Your task to perform on an android device: manage bookmarks in the chrome app Image 0: 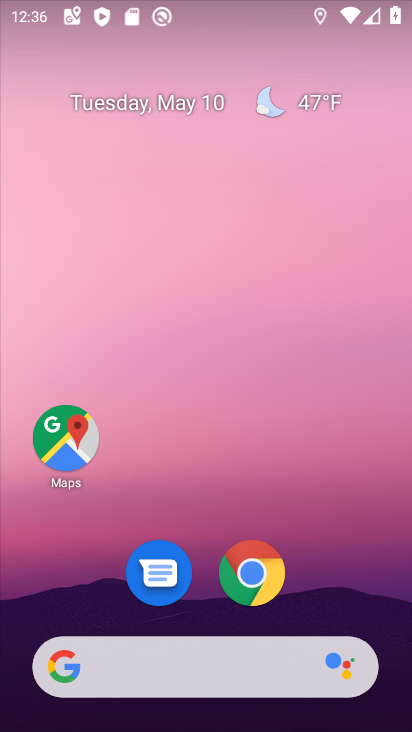
Step 0: drag from (236, 596) to (315, 136)
Your task to perform on an android device: manage bookmarks in the chrome app Image 1: 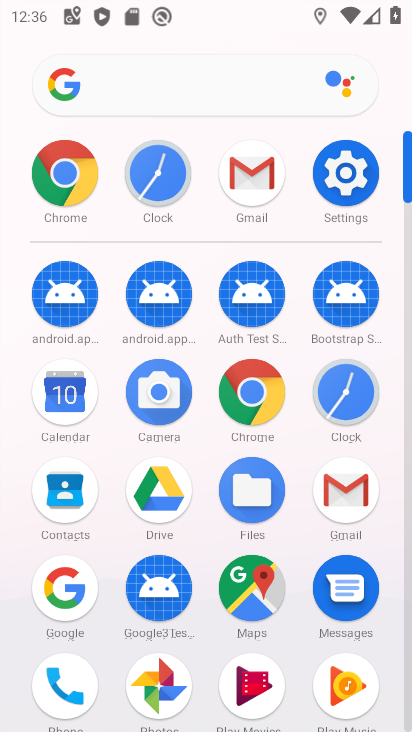
Step 1: click (240, 397)
Your task to perform on an android device: manage bookmarks in the chrome app Image 2: 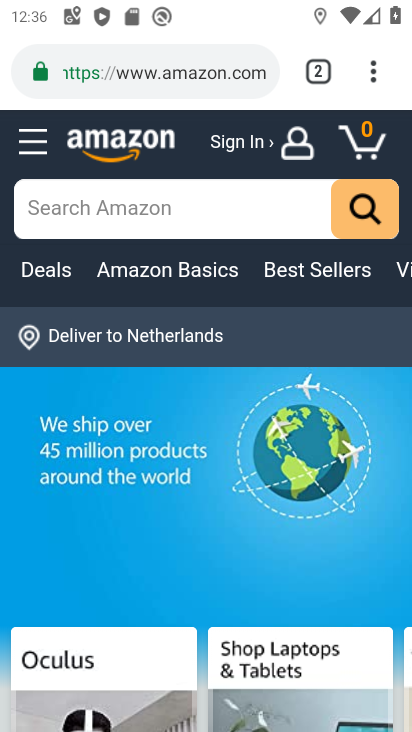
Step 2: drag from (152, 626) to (192, 307)
Your task to perform on an android device: manage bookmarks in the chrome app Image 3: 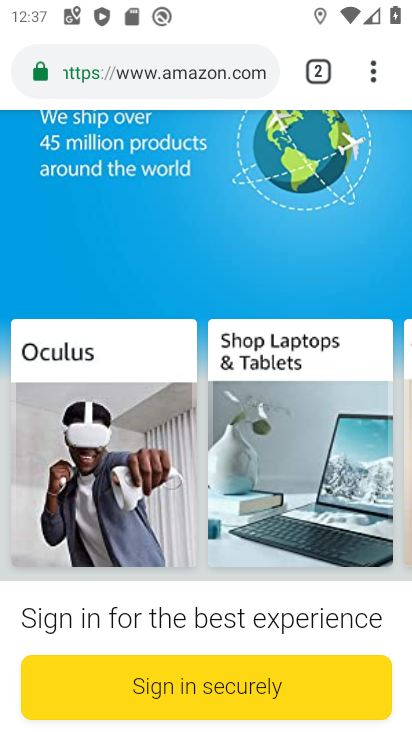
Step 3: click (378, 58)
Your task to perform on an android device: manage bookmarks in the chrome app Image 4: 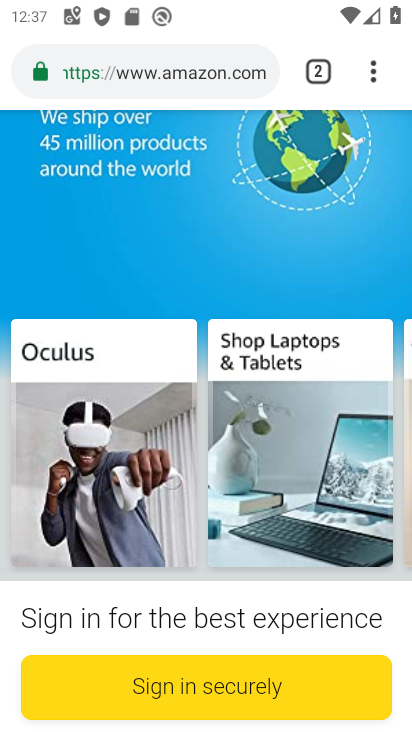
Step 4: drag from (235, 487) to (269, 199)
Your task to perform on an android device: manage bookmarks in the chrome app Image 5: 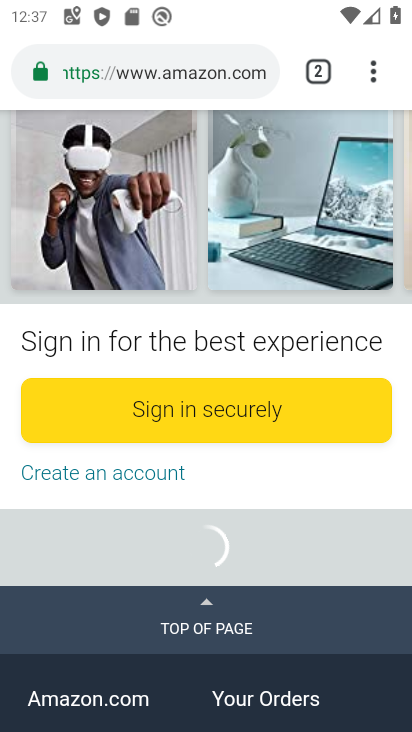
Step 5: drag from (369, 85) to (172, 271)
Your task to perform on an android device: manage bookmarks in the chrome app Image 6: 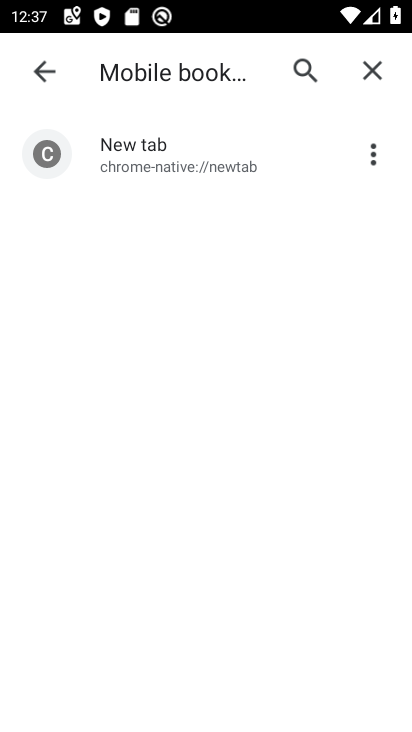
Step 6: drag from (178, 578) to (244, 189)
Your task to perform on an android device: manage bookmarks in the chrome app Image 7: 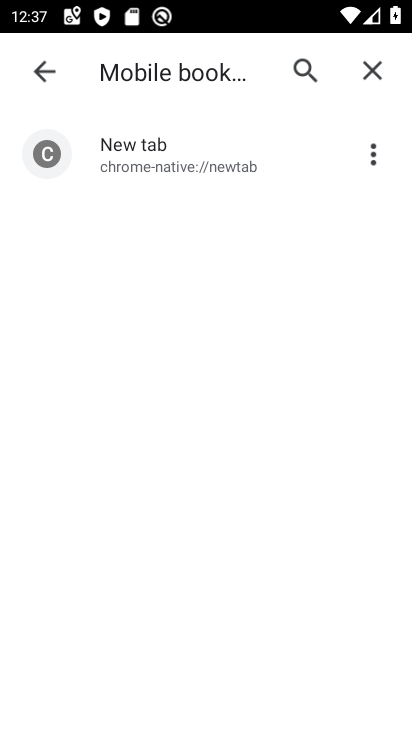
Step 7: drag from (88, 619) to (116, 412)
Your task to perform on an android device: manage bookmarks in the chrome app Image 8: 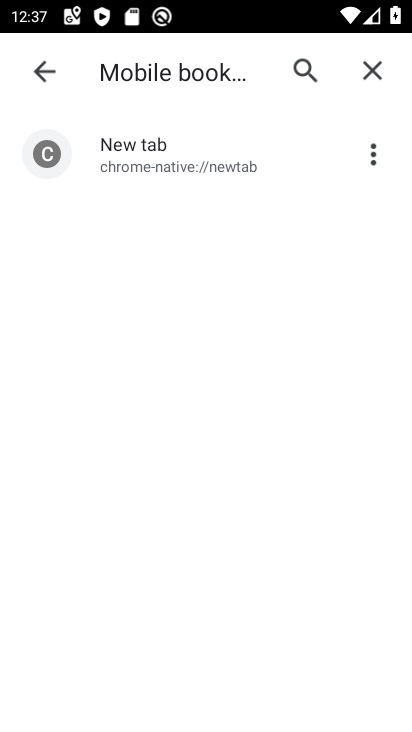
Step 8: click (207, 142)
Your task to perform on an android device: manage bookmarks in the chrome app Image 9: 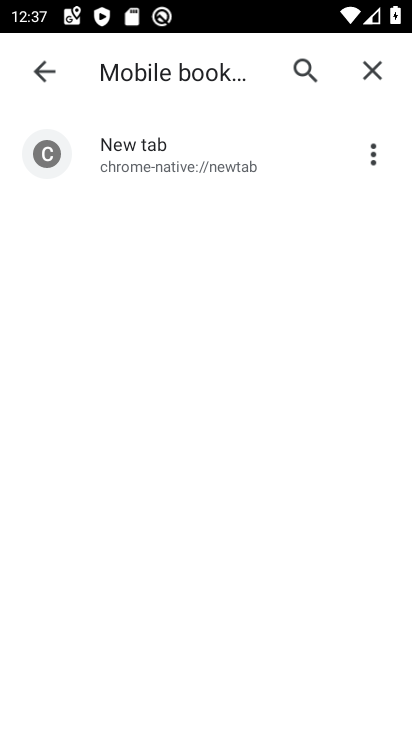
Step 9: click (207, 142)
Your task to perform on an android device: manage bookmarks in the chrome app Image 10: 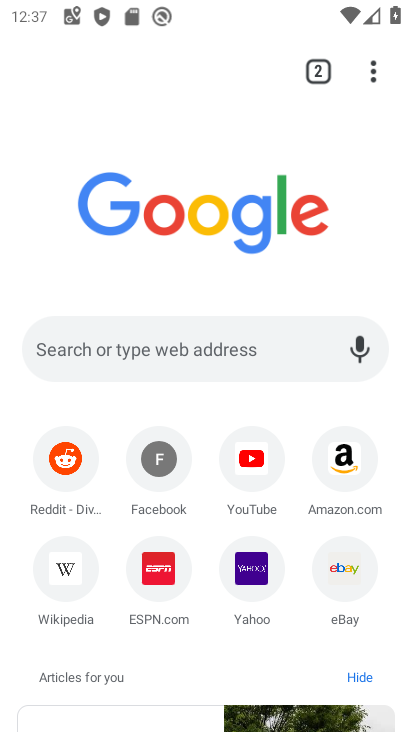
Step 10: task complete